Your task to perform on an android device: Open Chrome and go to settings Image 0: 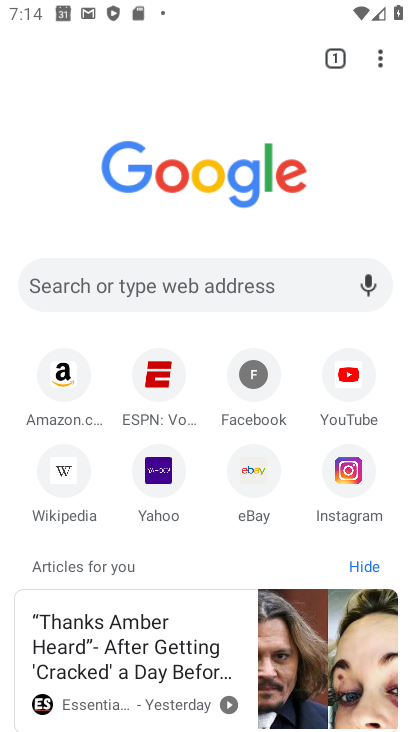
Step 0: press home button
Your task to perform on an android device: Open Chrome and go to settings Image 1: 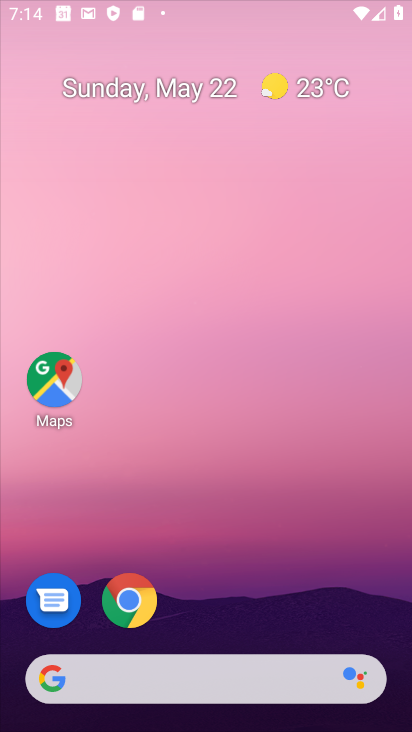
Step 1: drag from (385, 627) to (304, 53)
Your task to perform on an android device: Open Chrome and go to settings Image 2: 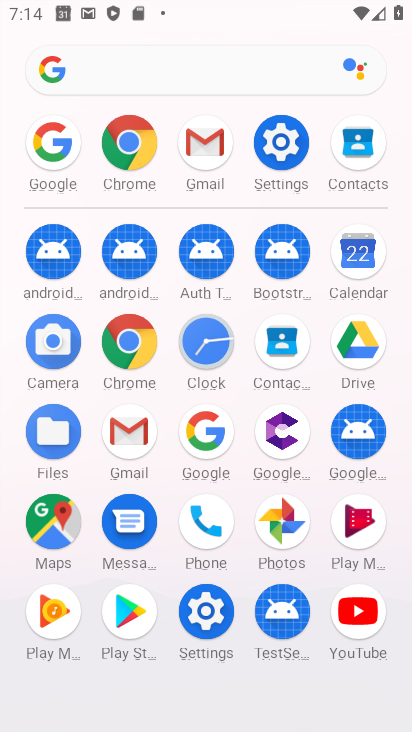
Step 2: click (141, 168)
Your task to perform on an android device: Open Chrome and go to settings Image 3: 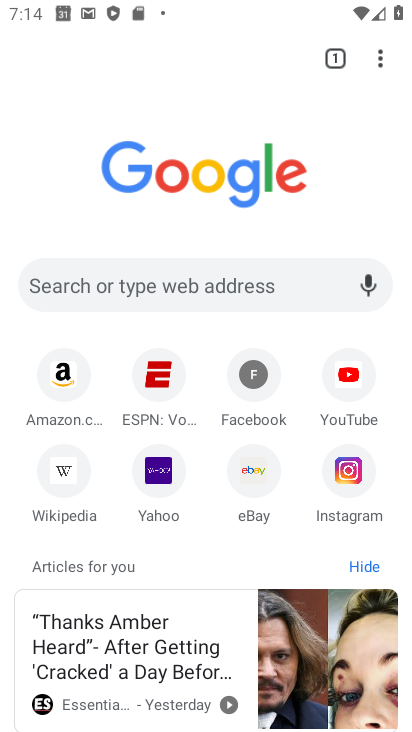
Step 3: click (385, 55)
Your task to perform on an android device: Open Chrome and go to settings Image 4: 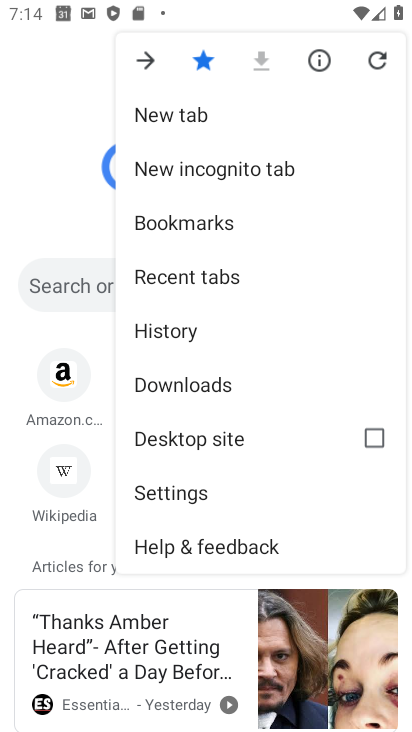
Step 4: click (229, 488)
Your task to perform on an android device: Open Chrome and go to settings Image 5: 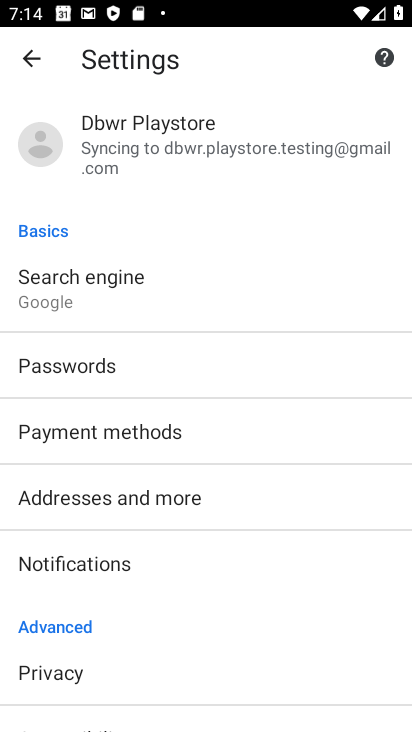
Step 5: task complete